Your task to perform on an android device: Open calendar and show me the fourth week of next month Image 0: 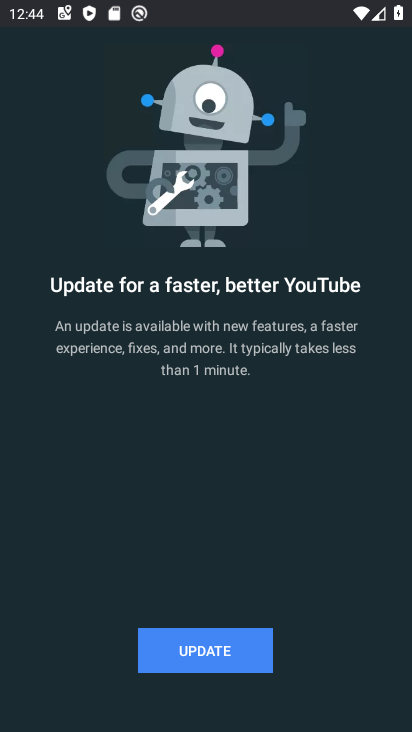
Step 0: drag from (215, 730) to (411, 715)
Your task to perform on an android device: Open calendar and show me the fourth week of next month Image 1: 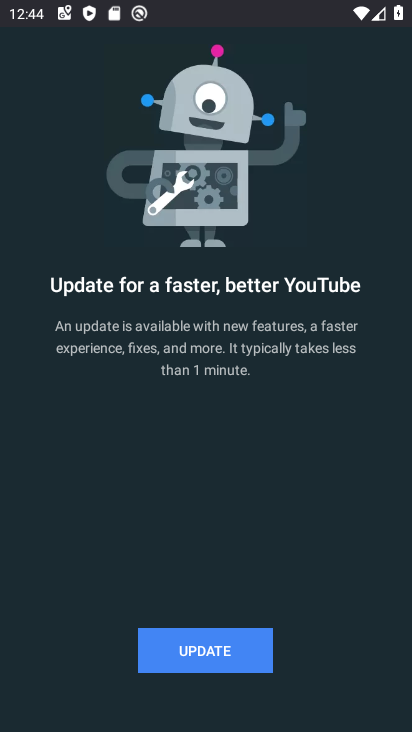
Step 1: press home button
Your task to perform on an android device: Open calendar and show me the fourth week of next month Image 2: 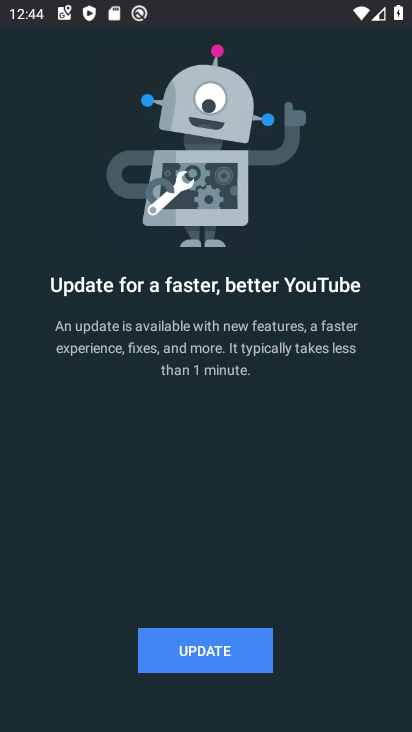
Step 2: drag from (411, 715) to (303, 293)
Your task to perform on an android device: Open calendar and show me the fourth week of next month Image 3: 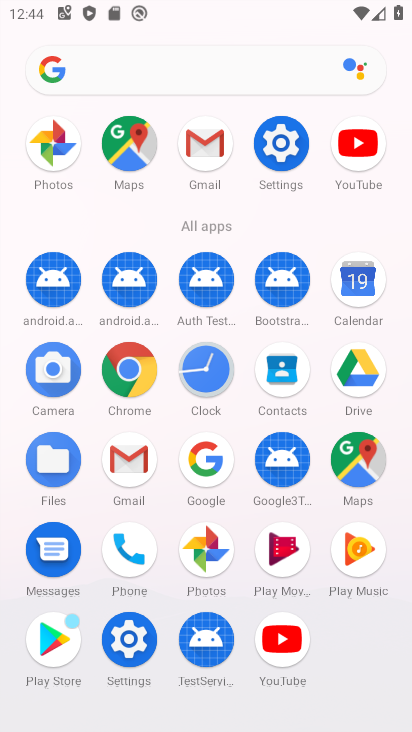
Step 3: click (364, 291)
Your task to perform on an android device: Open calendar and show me the fourth week of next month Image 4: 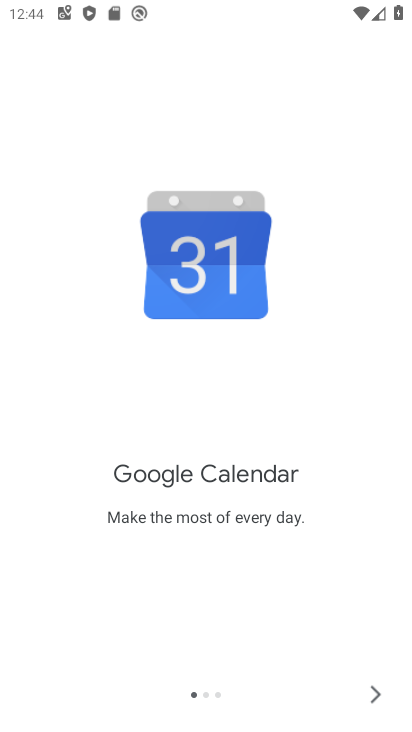
Step 4: click (372, 700)
Your task to perform on an android device: Open calendar and show me the fourth week of next month Image 5: 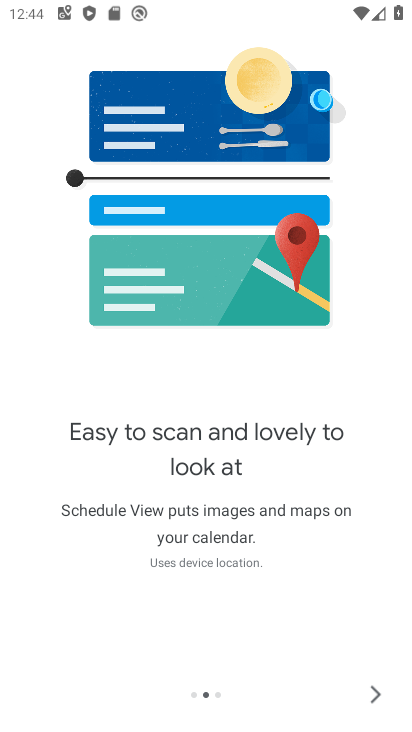
Step 5: click (372, 700)
Your task to perform on an android device: Open calendar and show me the fourth week of next month Image 6: 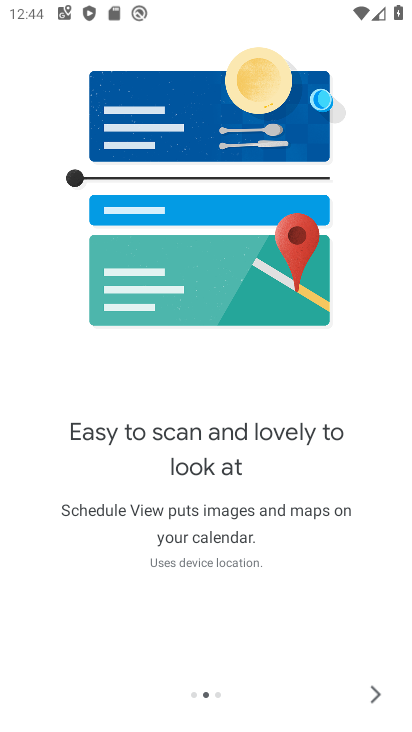
Step 6: click (372, 700)
Your task to perform on an android device: Open calendar and show me the fourth week of next month Image 7: 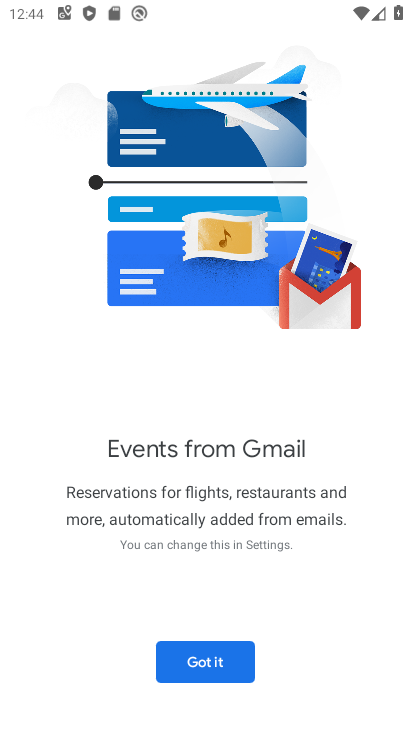
Step 7: click (197, 655)
Your task to perform on an android device: Open calendar and show me the fourth week of next month Image 8: 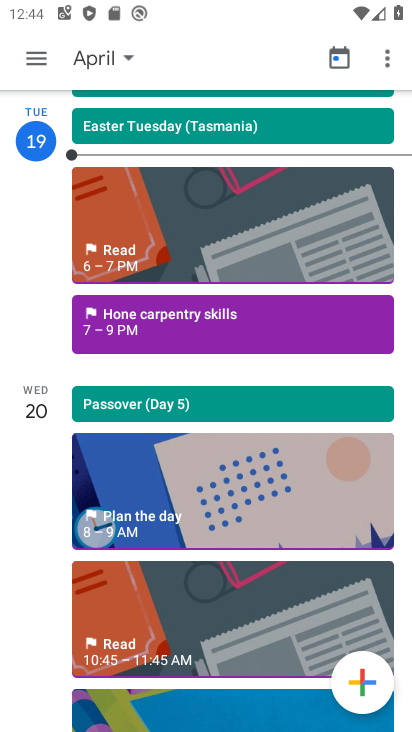
Step 8: click (124, 57)
Your task to perform on an android device: Open calendar and show me the fourth week of next month Image 9: 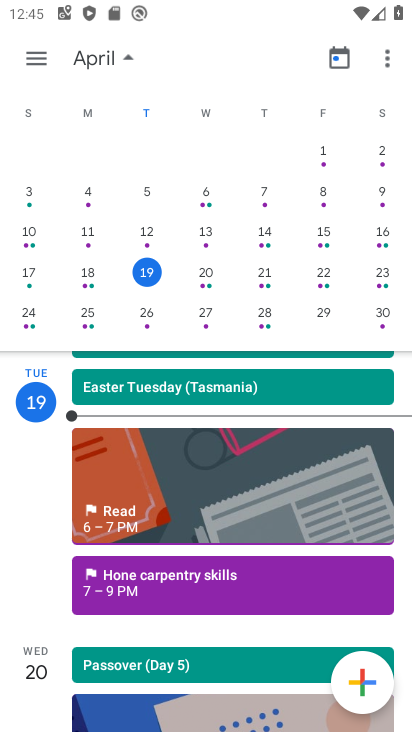
Step 9: drag from (295, 235) to (24, 116)
Your task to perform on an android device: Open calendar and show me the fourth week of next month Image 10: 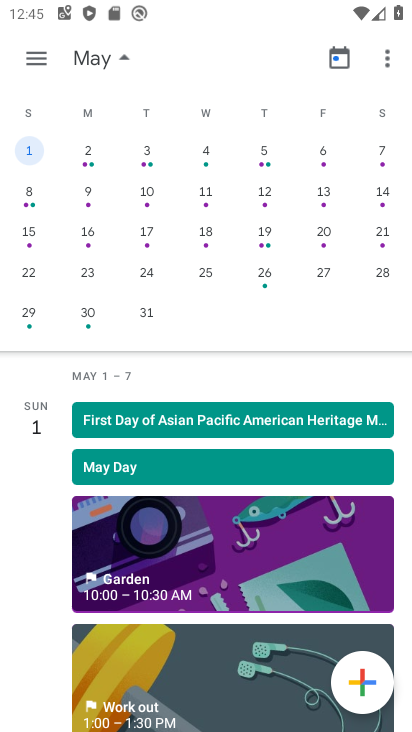
Step 10: click (35, 52)
Your task to perform on an android device: Open calendar and show me the fourth week of next month Image 11: 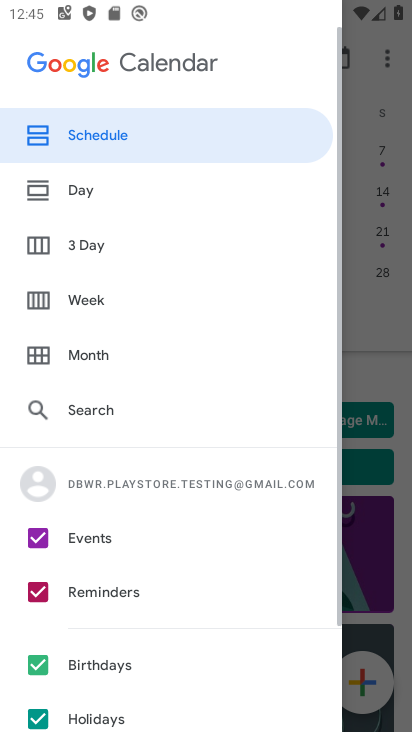
Step 11: click (103, 311)
Your task to perform on an android device: Open calendar and show me the fourth week of next month Image 12: 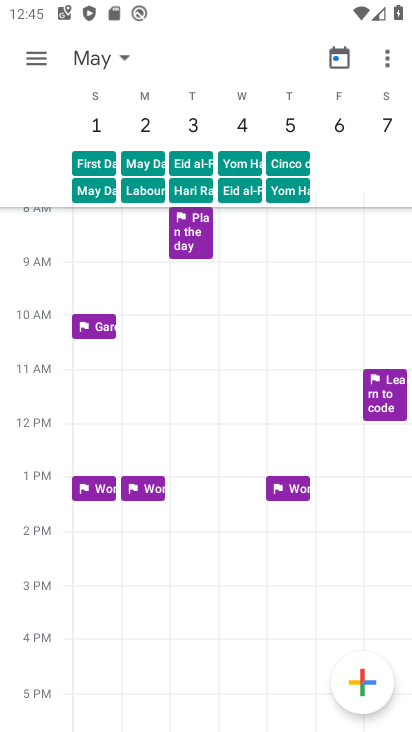
Step 12: task complete